Your task to perform on an android device: clear all cookies in the chrome app Image 0: 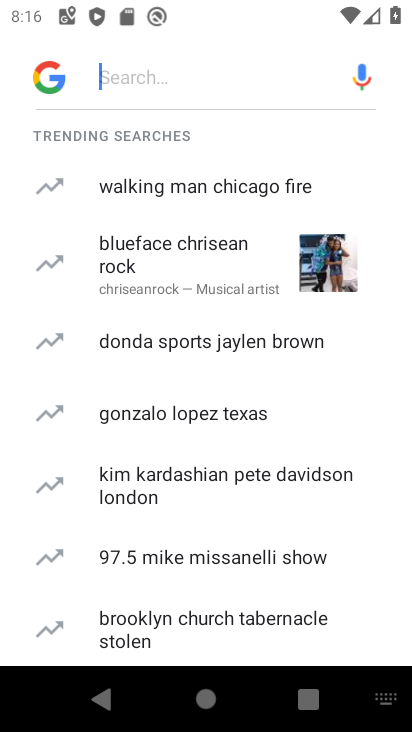
Step 0: press home button
Your task to perform on an android device: clear all cookies in the chrome app Image 1: 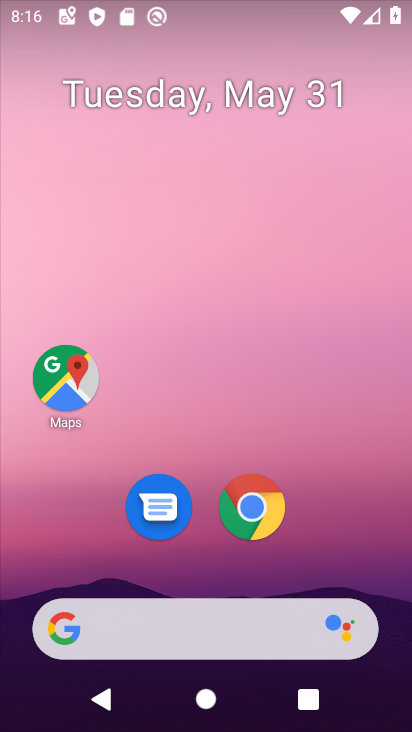
Step 1: click (263, 510)
Your task to perform on an android device: clear all cookies in the chrome app Image 2: 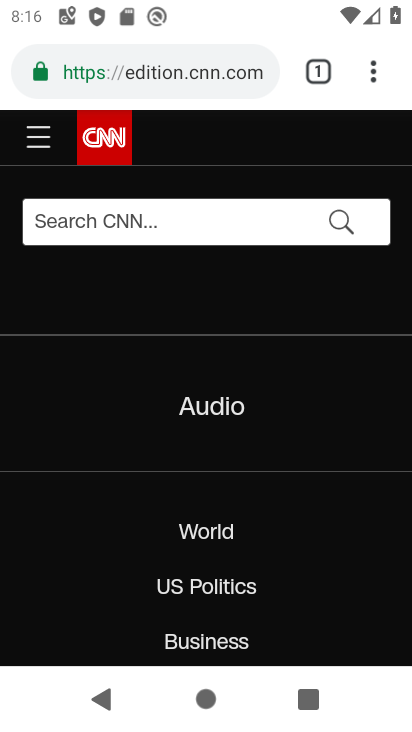
Step 2: click (371, 65)
Your task to perform on an android device: clear all cookies in the chrome app Image 3: 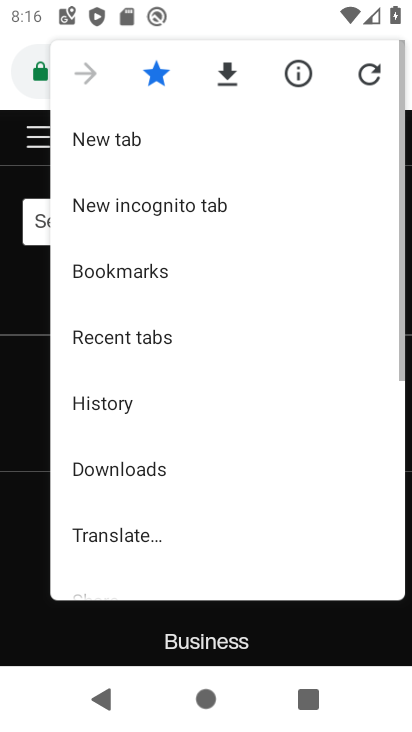
Step 3: drag from (185, 476) to (259, 91)
Your task to perform on an android device: clear all cookies in the chrome app Image 4: 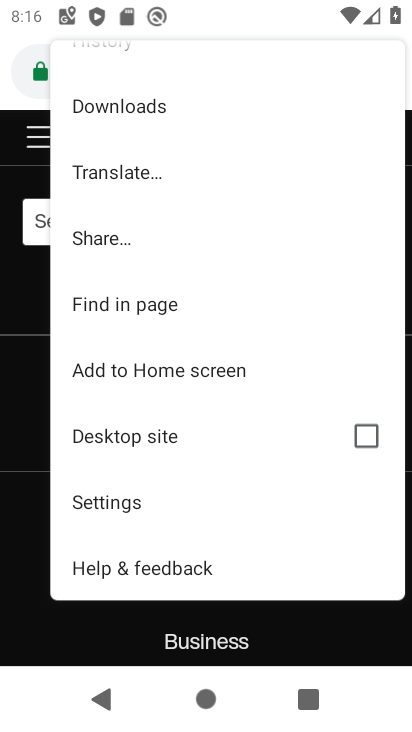
Step 4: drag from (161, 124) to (178, 399)
Your task to perform on an android device: clear all cookies in the chrome app Image 5: 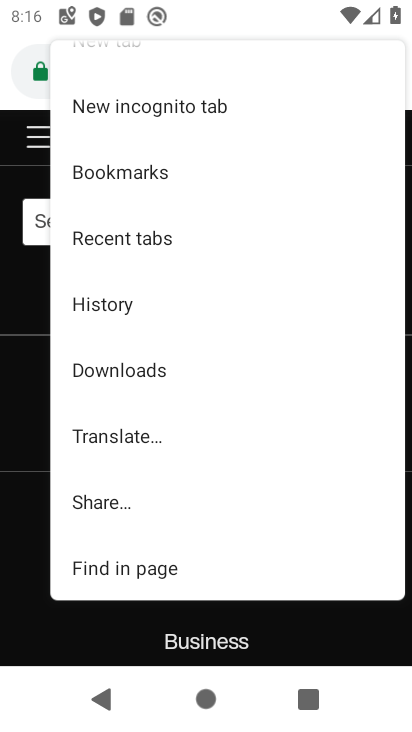
Step 5: click (105, 292)
Your task to perform on an android device: clear all cookies in the chrome app Image 6: 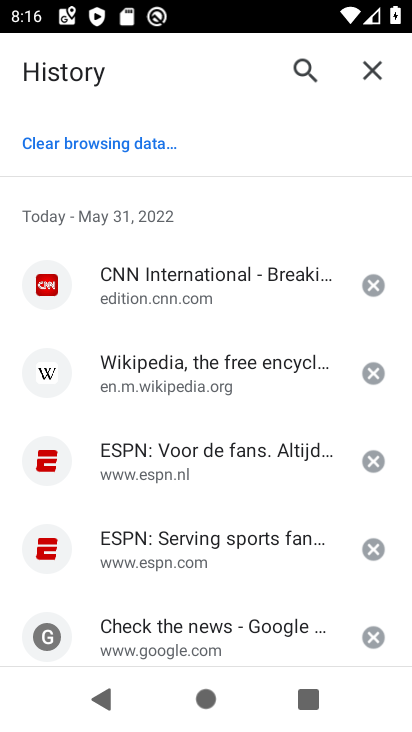
Step 6: click (60, 136)
Your task to perform on an android device: clear all cookies in the chrome app Image 7: 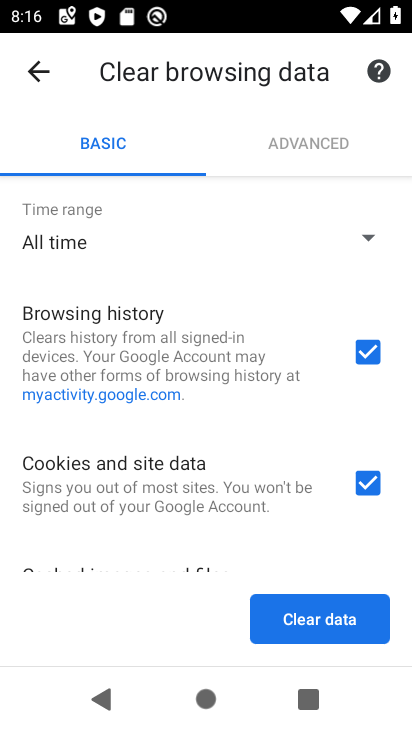
Step 7: click (352, 619)
Your task to perform on an android device: clear all cookies in the chrome app Image 8: 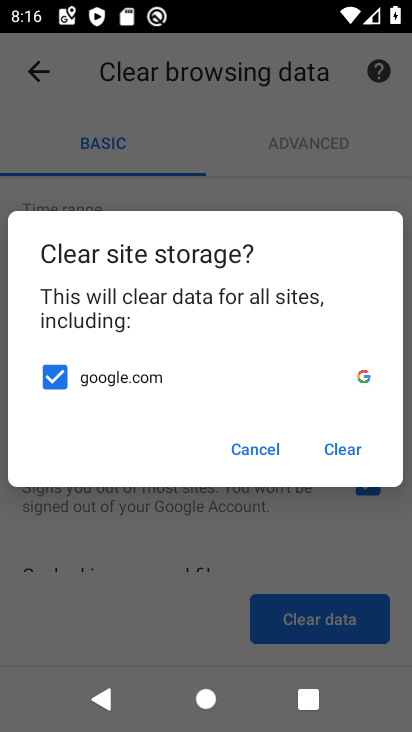
Step 8: click (344, 447)
Your task to perform on an android device: clear all cookies in the chrome app Image 9: 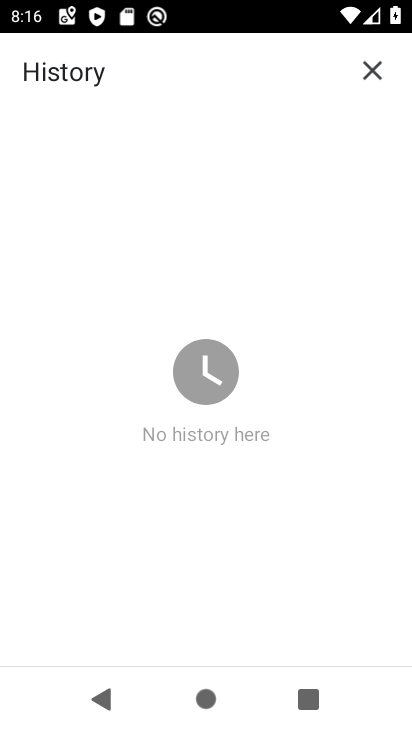
Step 9: task complete